Your task to perform on an android device: turn off location Image 0: 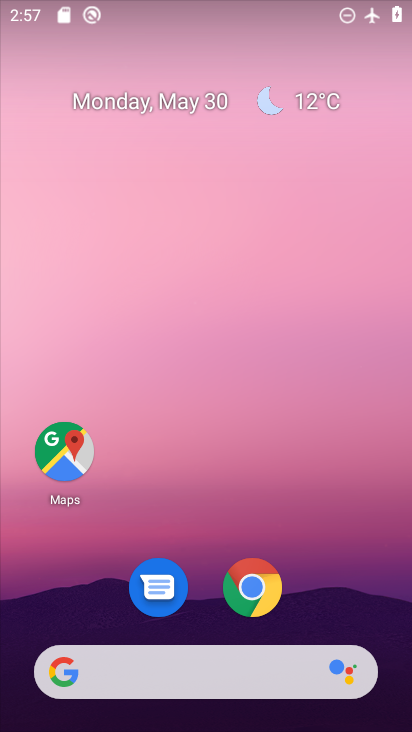
Step 0: drag from (204, 585) to (325, 175)
Your task to perform on an android device: turn off location Image 1: 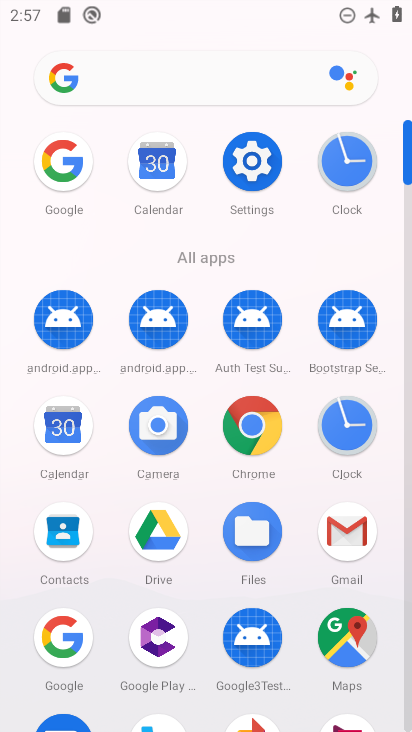
Step 1: click (253, 156)
Your task to perform on an android device: turn off location Image 2: 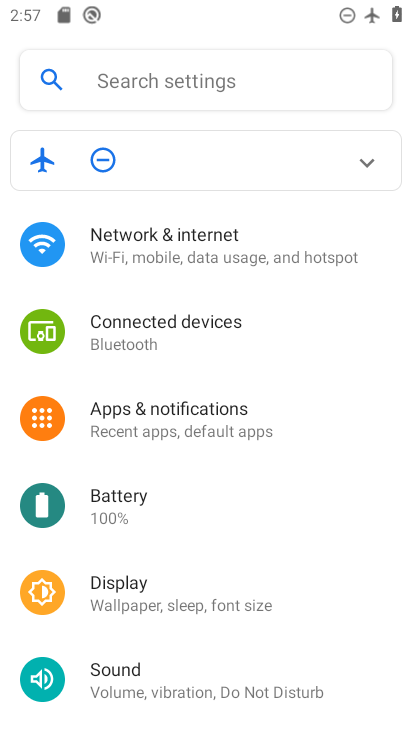
Step 2: drag from (178, 560) to (254, 199)
Your task to perform on an android device: turn off location Image 3: 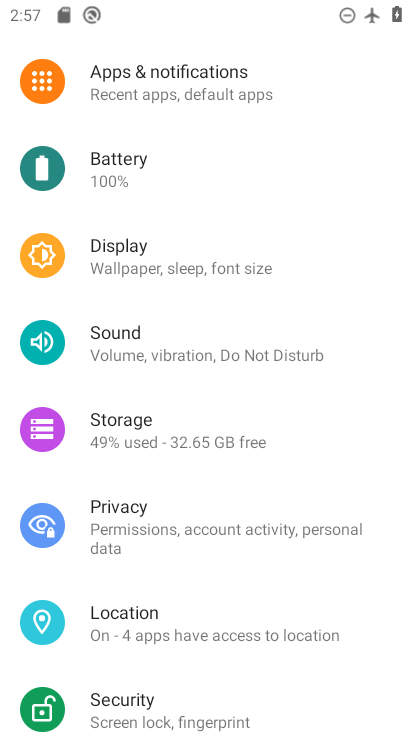
Step 3: click (164, 609)
Your task to perform on an android device: turn off location Image 4: 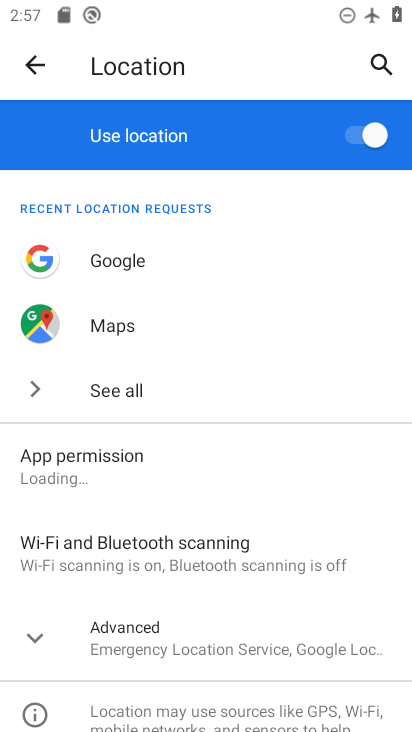
Step 4: click (347, 139)
Your task to perform on an android device: turn off location Image 5: 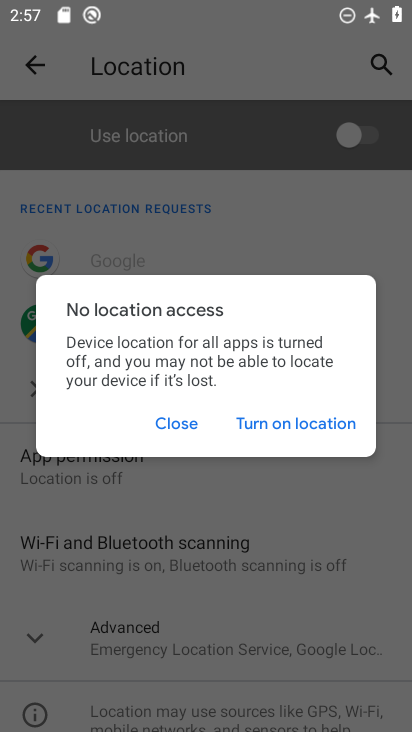
Step 5: click (181, 424)
Your task to perform on an android device: turn off location Image 6: 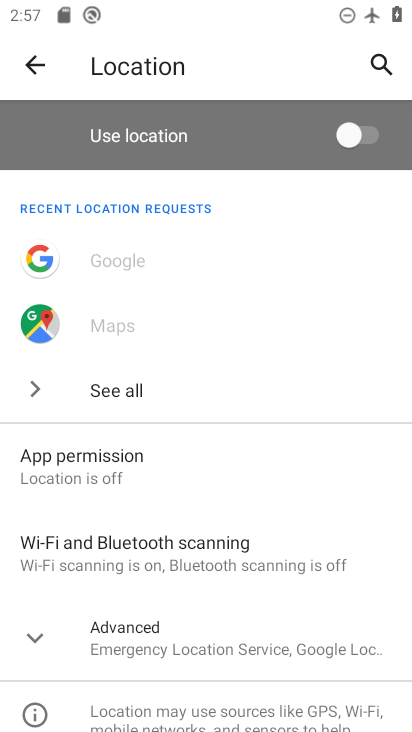
Step 6: task complete